Your task to perform on an android device: Go to network settings Image 0: 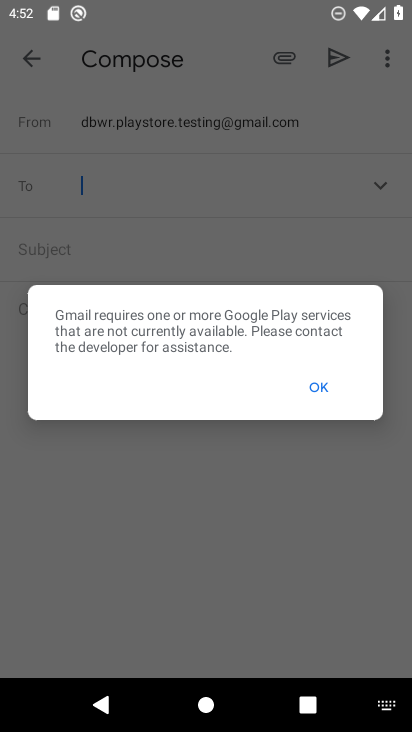
Step 0: press home button
Your task to perform on an android device: Go to network settings Image 1: 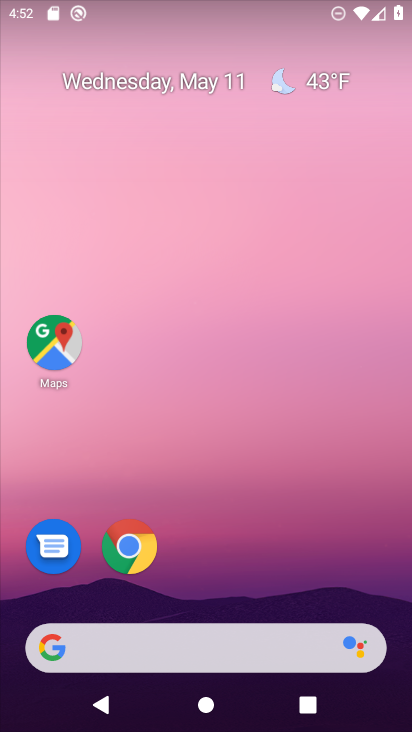
Step 1: drag from (211, 613) to (210, 159)
Your task to perform on an android device: Go to network settings Image 2: 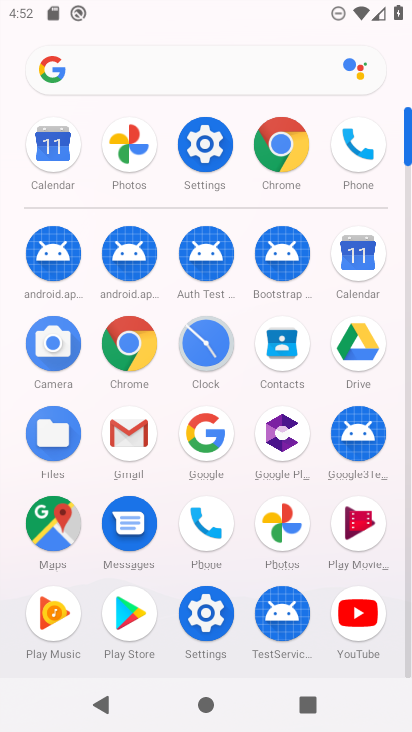
Step 2: click (199, 145)
Your task to perform on an android device: Go to network settings Image 3: 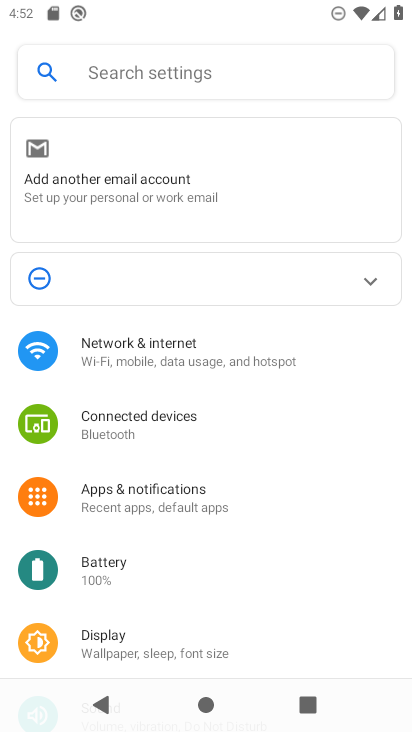
Step 3: click (175, 223)
Your task to perform on an android device: Go to network settings Image 4: 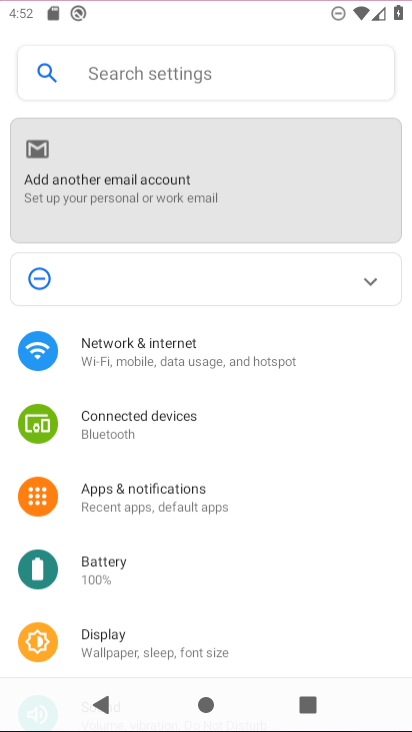
Step 4: click (155, 353)
Your task to perform on an android device: Go to network settings Image 5: 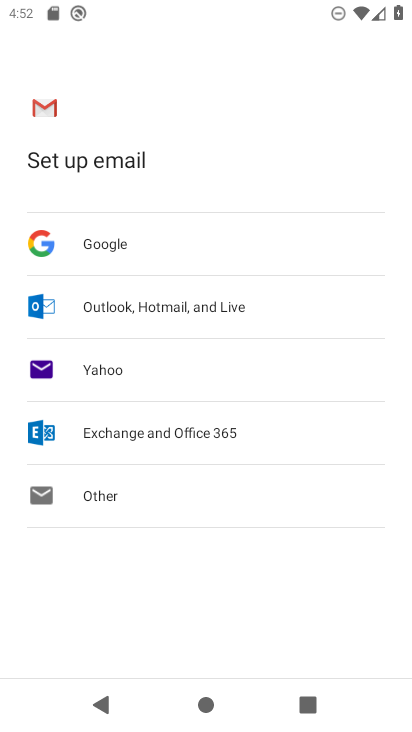
Step 5: click (98, 706)
Your task to perform on an android device: Go to network settings Image 6: 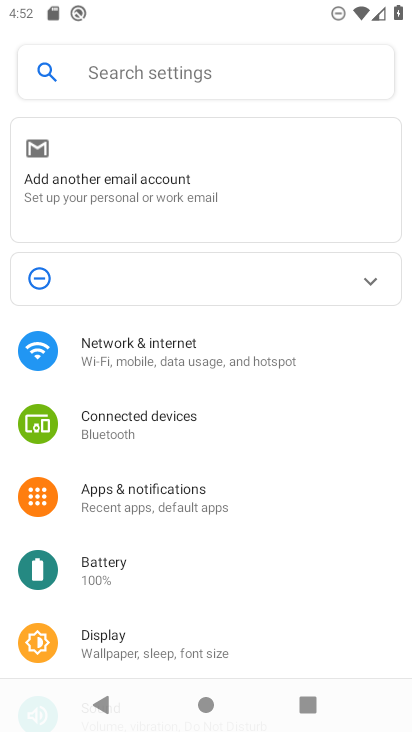
Step 6: click (171, 345)
Your task to perform on an android device: Go to network settings Image 7: 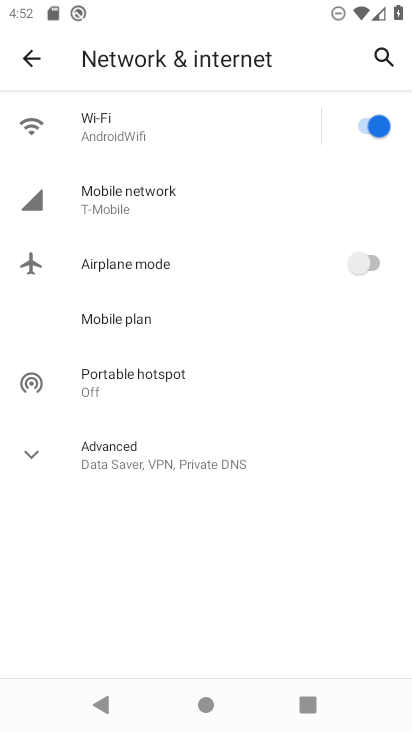
Step 7: click (132, 452)
Your task to perform on an android device: Go to network settings Image 8: 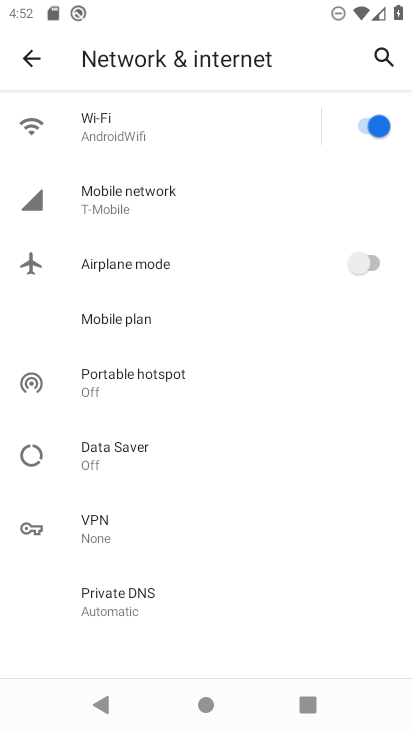
Step 8: task complete